Your task to perform on an android device: Open the phone app and click the voicemail tab. Image 0: 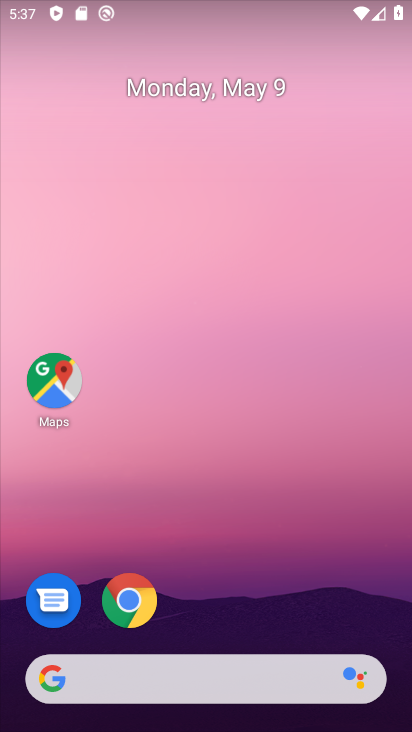
Step 0: drag from (202, 628) to (218, 183)
Your task to perform on an android device: Open the phone app and click the voicemail tab. Image 1: 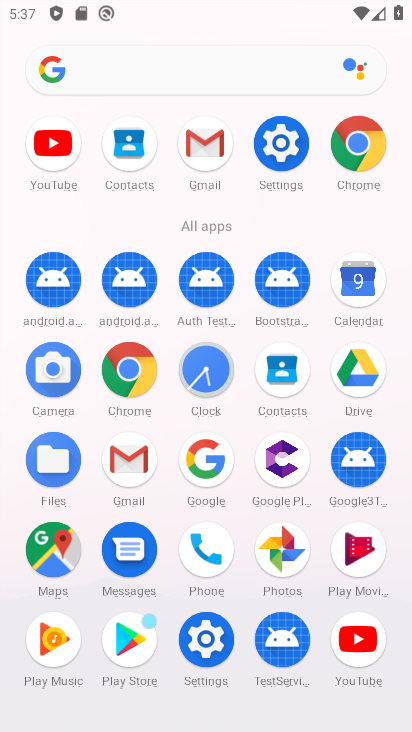
Step 1: click (214, 553)
Your task to perform on an android device: Open the phone app and click the voicemail tab. Image 2: 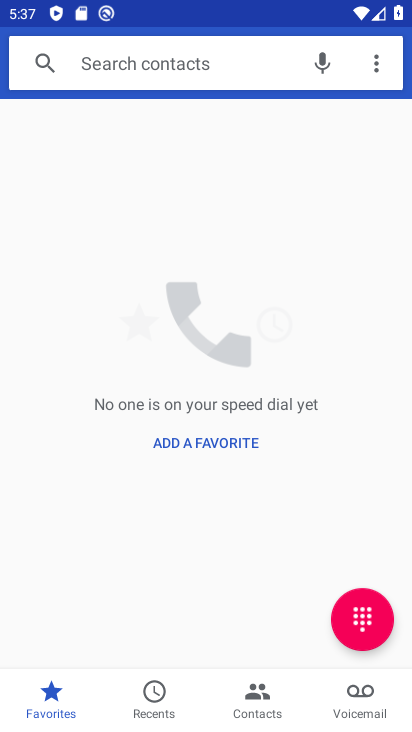
Step 2: click (371, 691)
Your task to perform on an android device: Open the phone app and click the voicemail tab. Image 3: 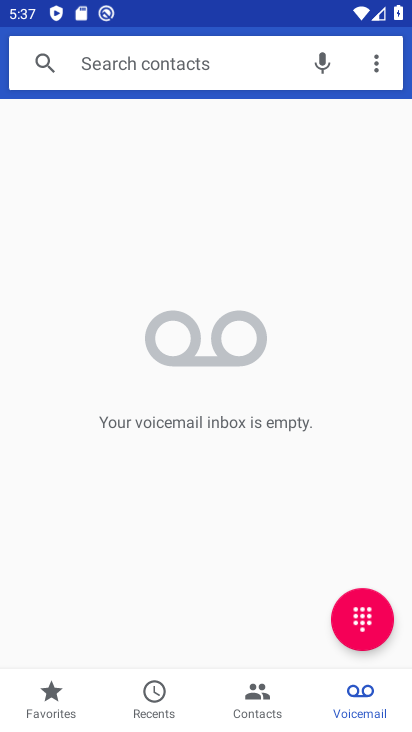
Step 3: task complete